Your task to perform on an android device: Find coffee shops on Maps Image 0: 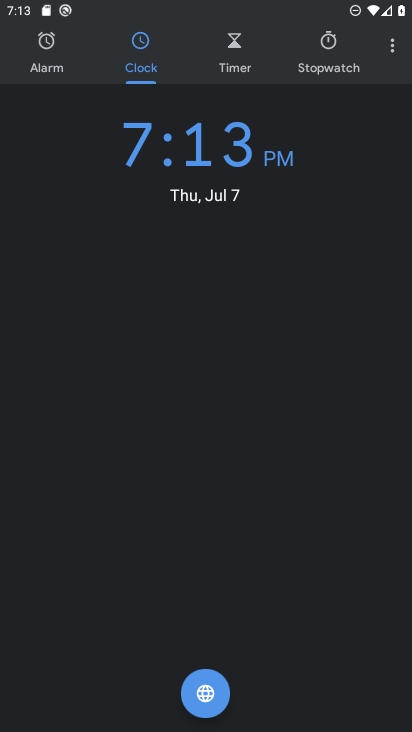
Step 0: press home button
Your task to perform on an android device: Find coffee shops on Maps Image 1: 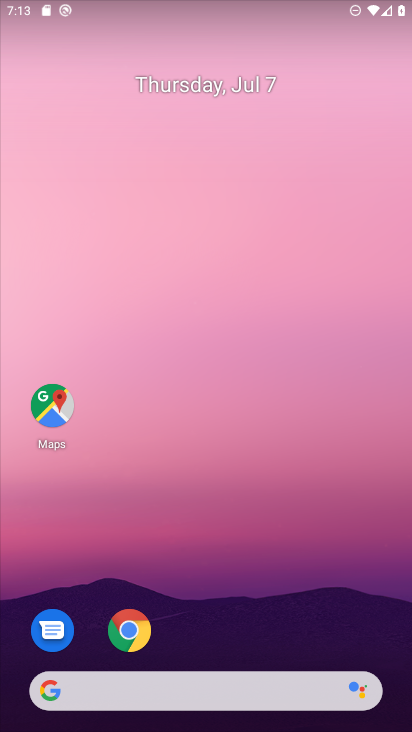
Step 1: click (46, 410)
Your task to perform on an android device: Find coffee shops on Maps Image 2: 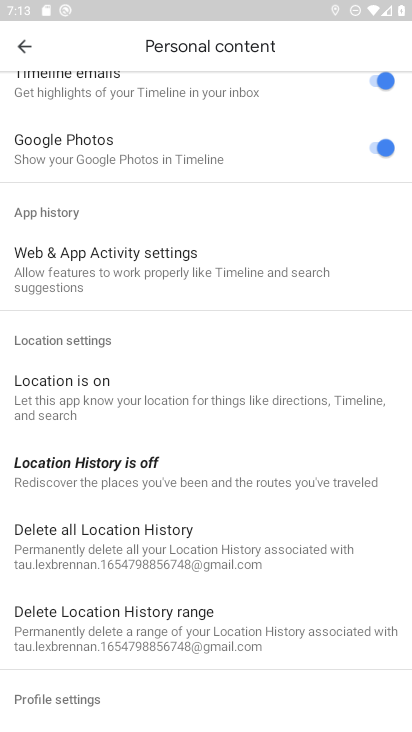
Step 2: click (21, 46)
Your task to perform on an android device: Find coffee shops on Maps Image 3: 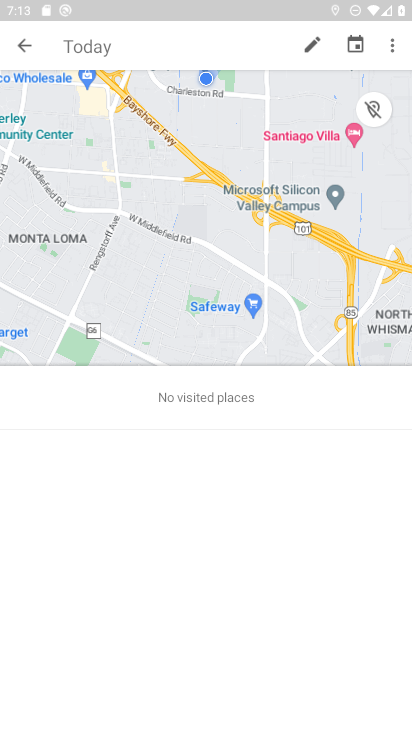
Step 3: click (22, 45)
Your task to perform on an android device: Find coffee shops on Maps Image 4: 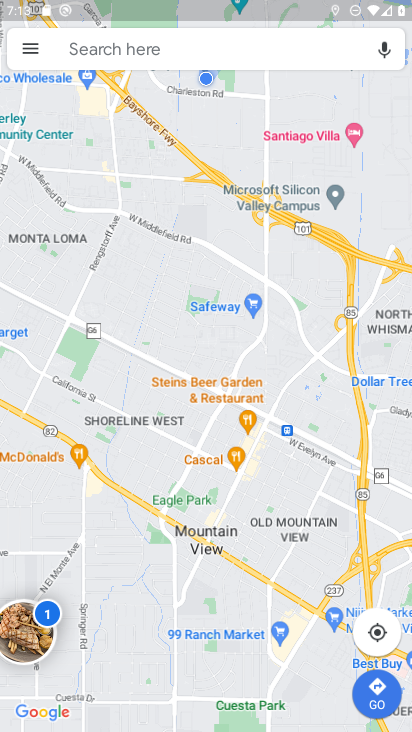
Step 4: click (138, 43)
Your task to perform on an android device: Find coffee shops on Maps Image 5: 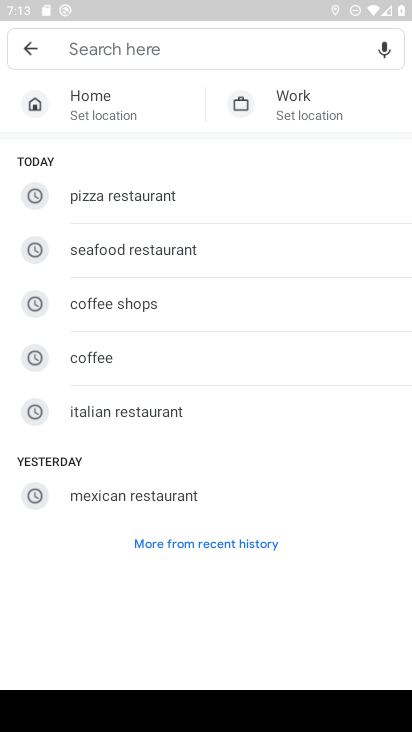
Step 5: click (115, 301)
Your task to perform on an android device: Find coffee shops on Maps Image 6: 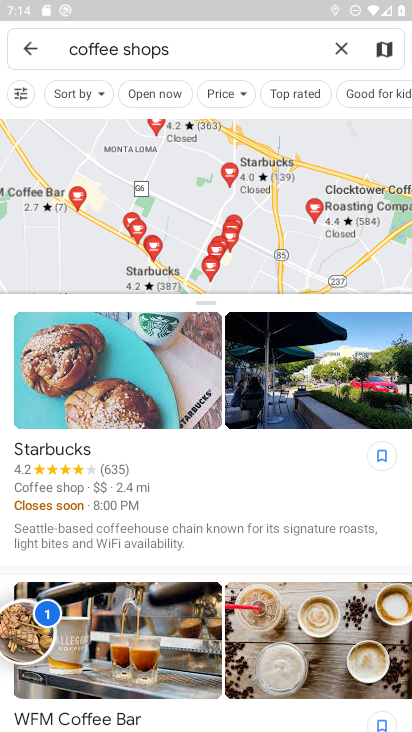
Step 6: task complete